Your task to perform on an android device: Open maps Image 0: 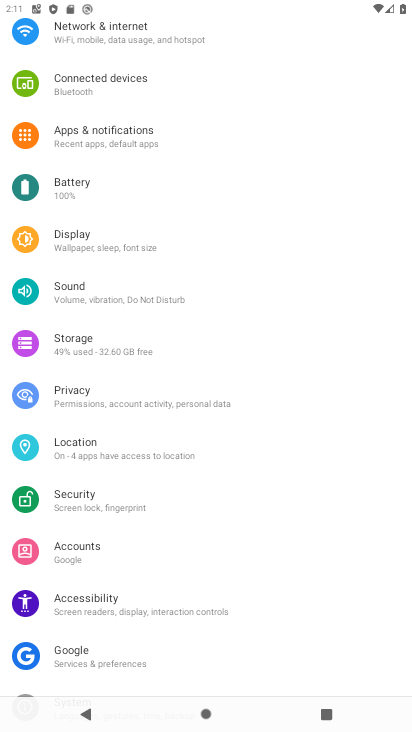
Step 0: press home button
Your task to perform on an android device: Open maps Image 1: 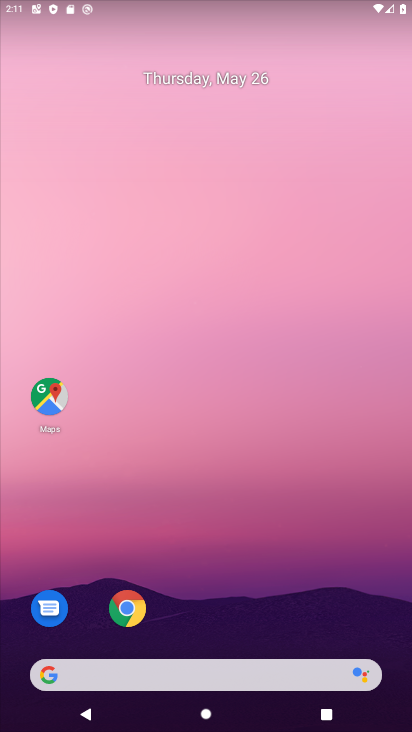
Step 1: drag from (198, 490) to (222, 142)
Your task to perform on an android device: Open maps Image 2: 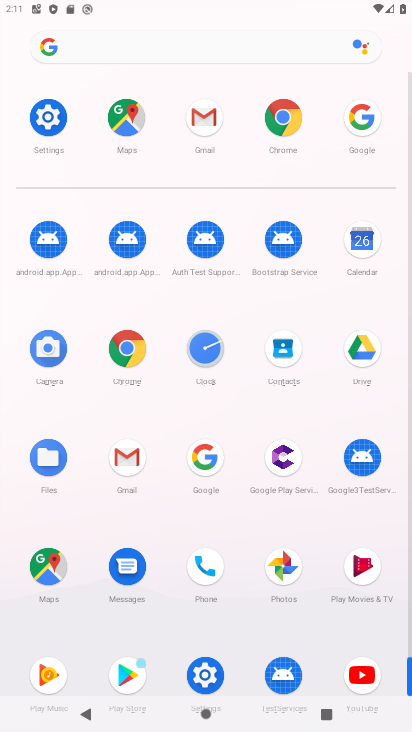
Step 2: click (146, 137)
Your task to perform on an android device: Open maps Image 3: 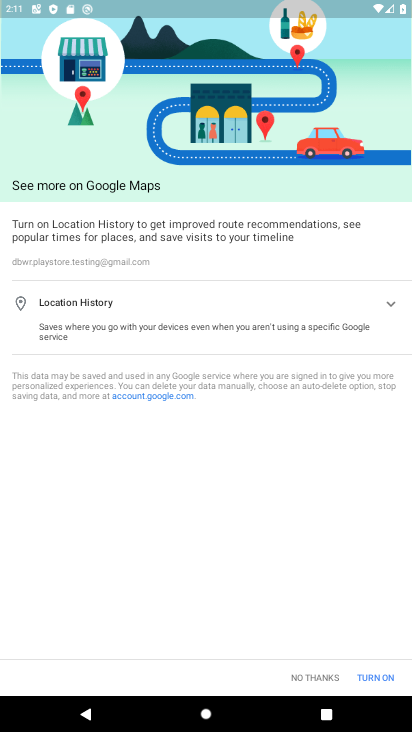
Step 3: task complete